Your task to perform on an android device: check android version Image 0: 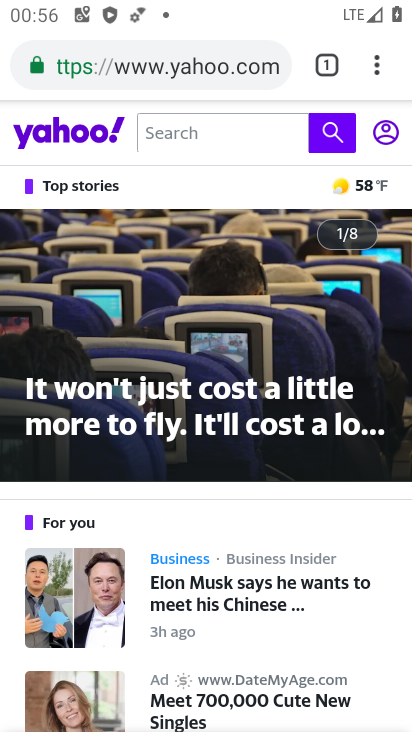
Step 0: press home button
Your task to perform on an android device: check android version Image 1: 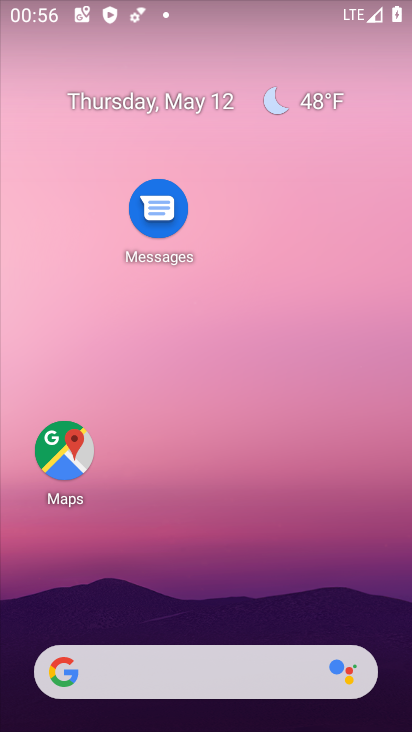
Step 1: drag from (228, 636) to (138, 5)
Your task to perform on an android device: check android version Image 2: 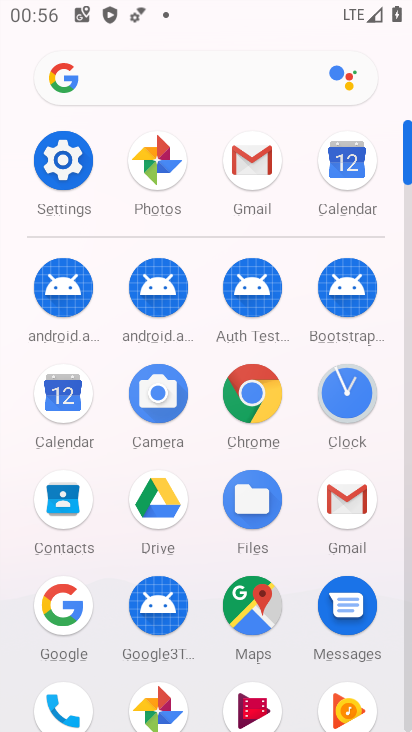
Step 2: click (60, 167)
Your task to perform on an android device: check android version Image 3: 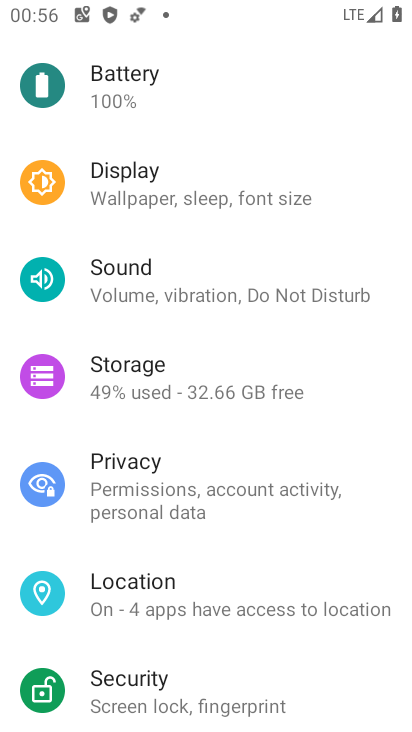
Step 3: drag from (175, 556) to (109, 21)
Your task to perform on an android device: check android version Image 4: 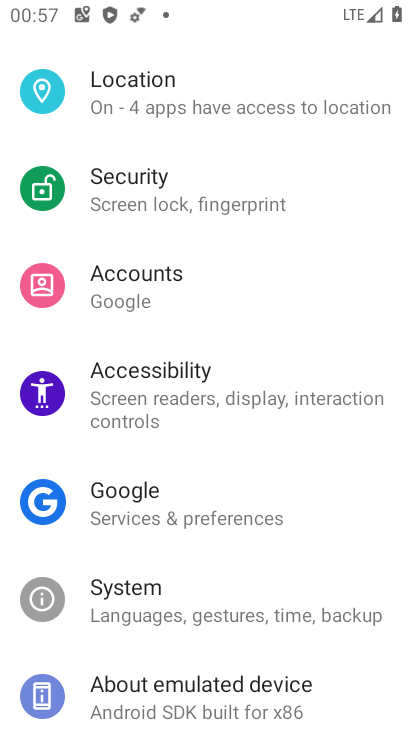
Step 4: click (150, 690)
Your task to perform on an android device: check android version Image 5: 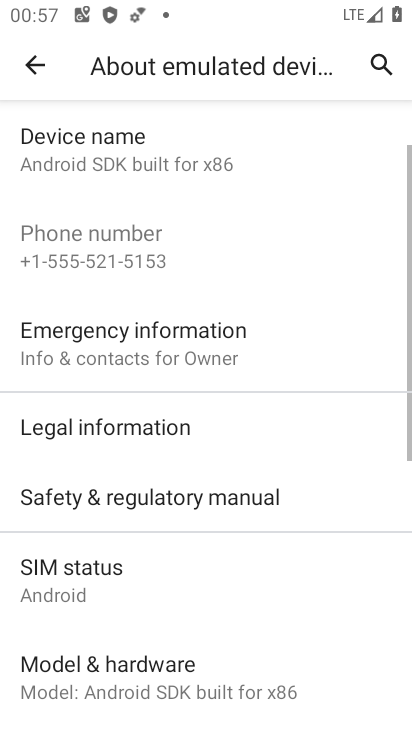
Step 5: drag from (126, 567) to (103, 106)
Your task to perform on an android device: check android version Image 6: 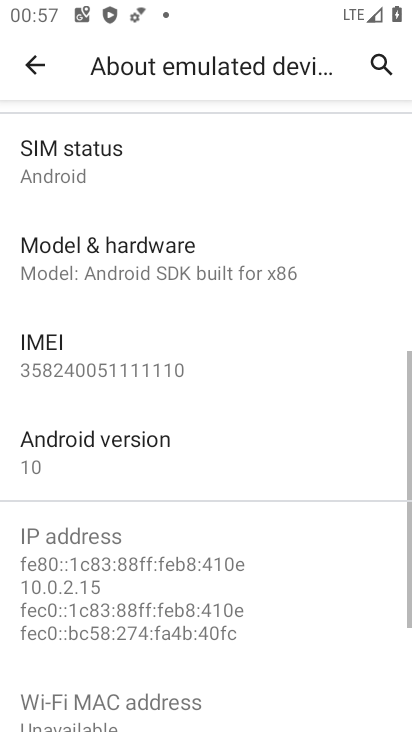
Step 6: drag from (130, 627) to (124, 442)
Your task to perform on an android device: check android version Image 7: 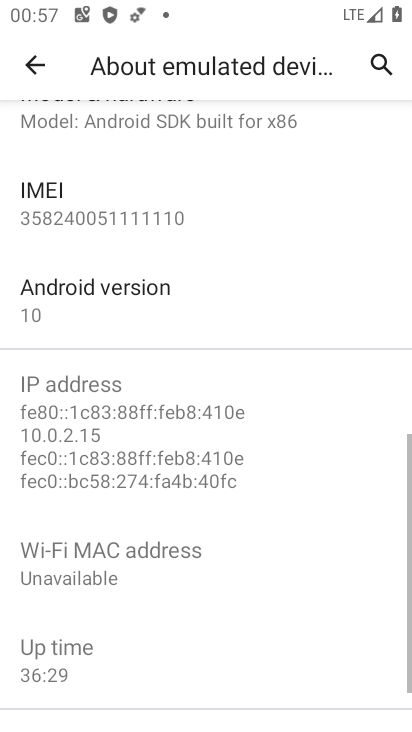
Step 7: click (75, 334)
Your task to perform on an android device: check android version Image 8: 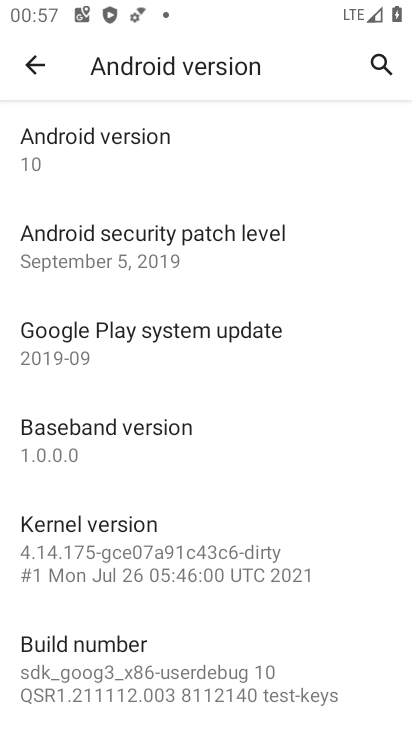
Step 8: click (73, 163)
Your task to perform on an android device: check android version Image 9: 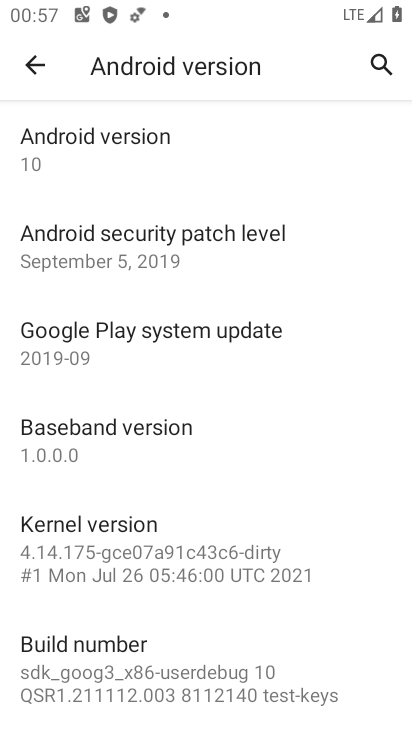
Step 9: task complete